Your task to perform on an android device: Open Yahoo.com Image 0: 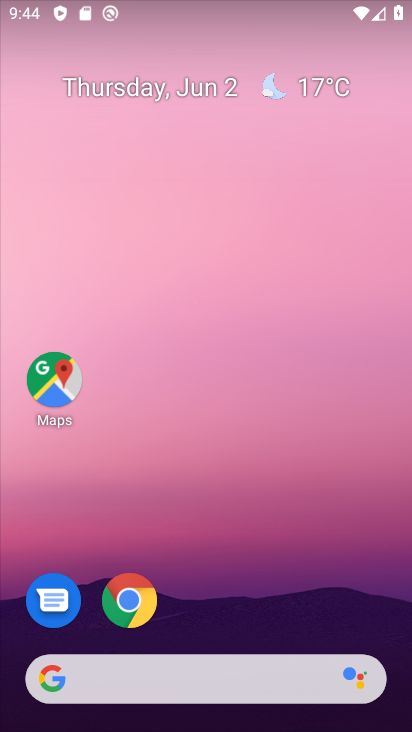
Step 0: drag from (205, 567) to (168, 13)
Your task to perform on an android device: Open Yahoo.com Image 1: 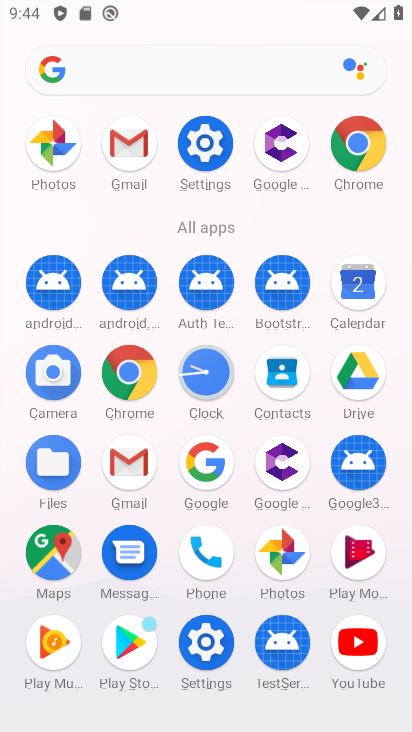
Step 1: click (127, 375)
Your task to perform on an android device: Open Yahoo.com Image 2: 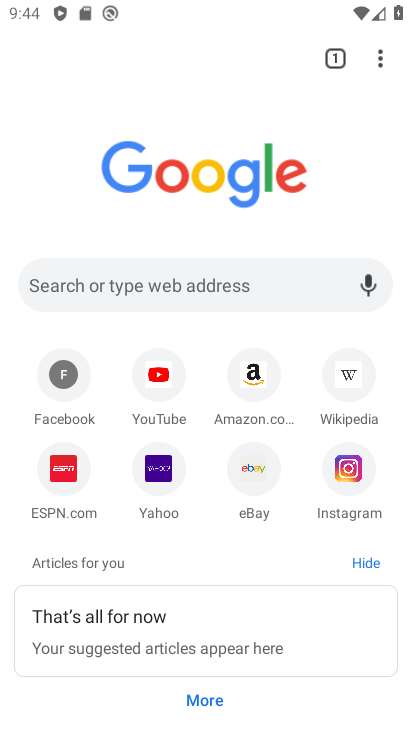
Step 2: click (158, 465)
Your task to perform on an android device: Open Yahoo.com Image 3: 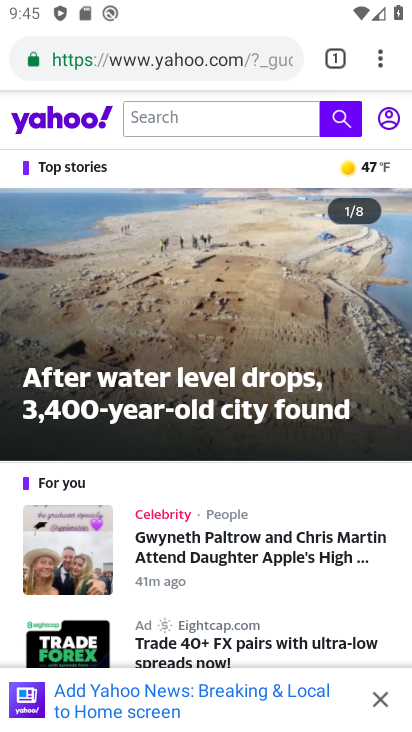
Step 3: task complete